Your task to perform on an android device: search for starred emails in the gmail app Image 0: 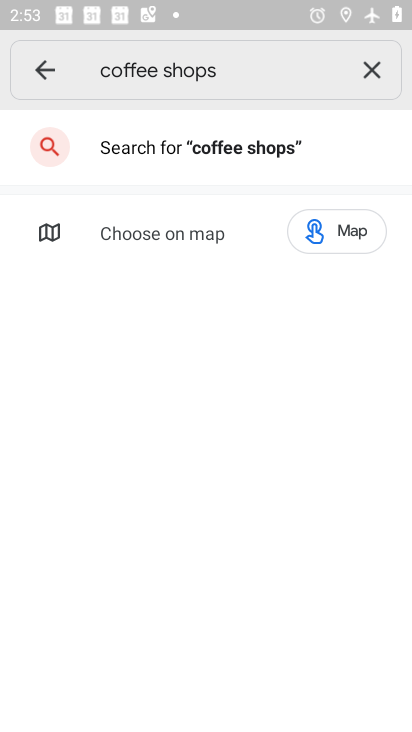
Step 0: press home button
Your task to perform on an android device: search for starred emails in the gmail app Image 1: 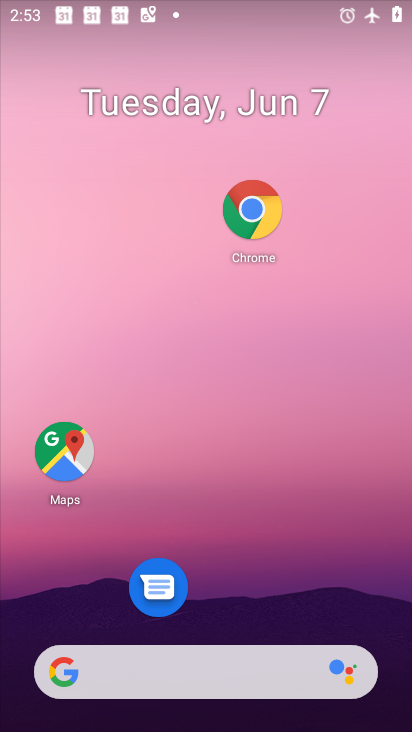
Step 1: drag from (278, 712) to (253, 291)
Your task to perform on an android device: search for starred emails in the gmail app Image 2: 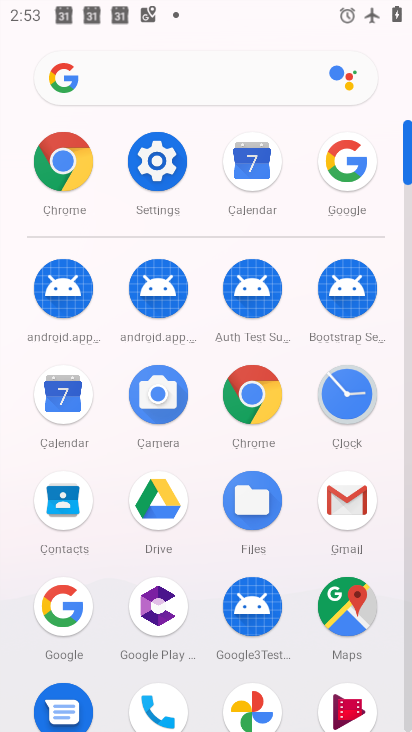
Step 2: click (338, 499)
Your task to perform on an android device: search for starred emails in the gmail app Image 3: 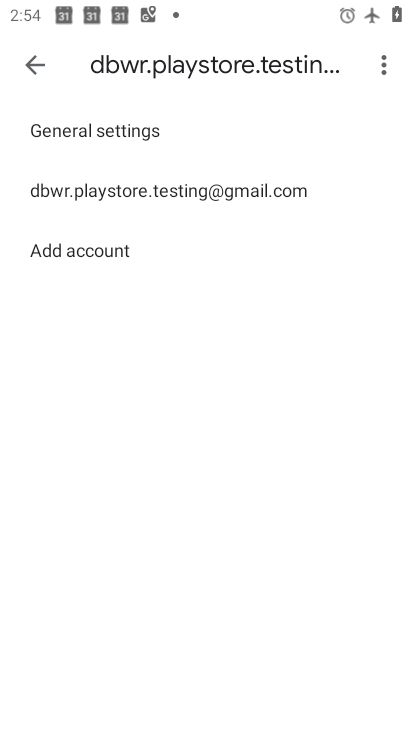
Step 3: click (46, 63)
Your task to perform on an android device: search for starred emails in the gmail app Image 4: 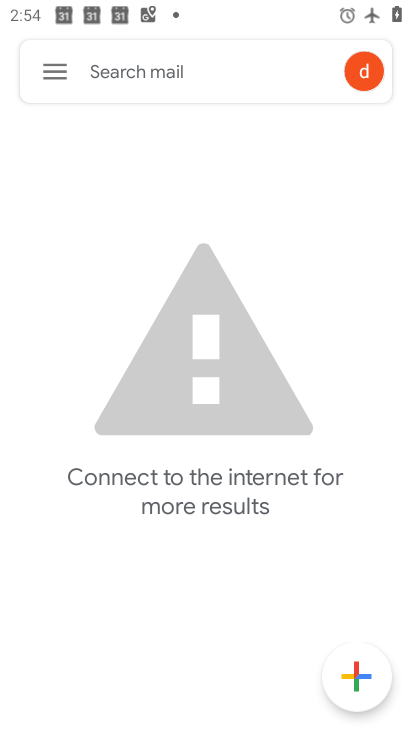
Step 4: click (46, 63)
Your task to perform on an android device: search for starred emails in the gmail app Image 5: 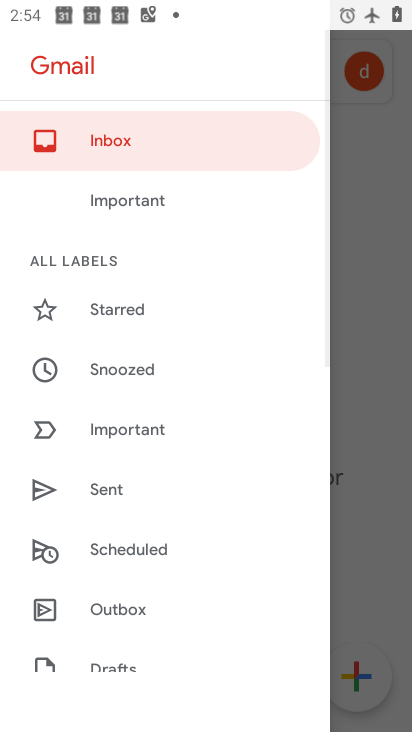
Step 5: click (134, 311)
Your task to perform on an android device: search for starred emails in the gmail app Image 6: 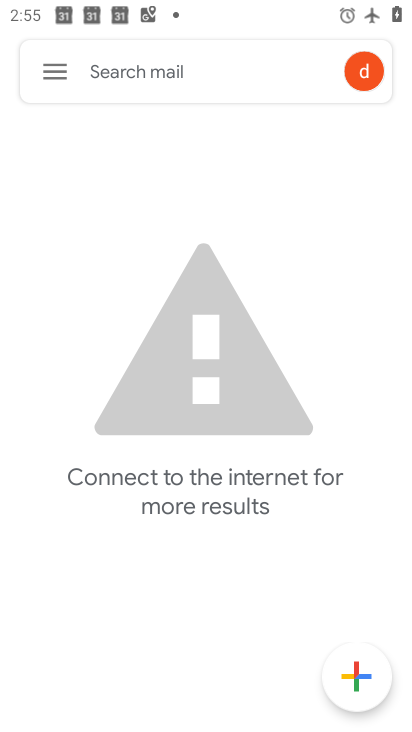
Step 6: task complete